Your task to perform on an android device: Open the calendar and show me this week's events Image 0: 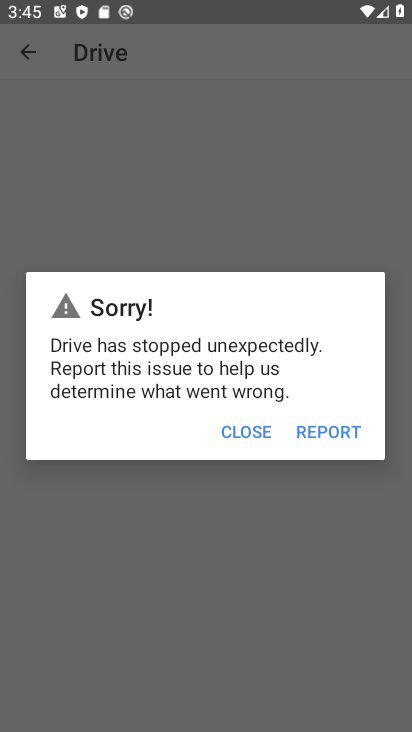
Step 0: press home button
Your task to perform on an android device: Open the calendar and show me this week's events Image 1: 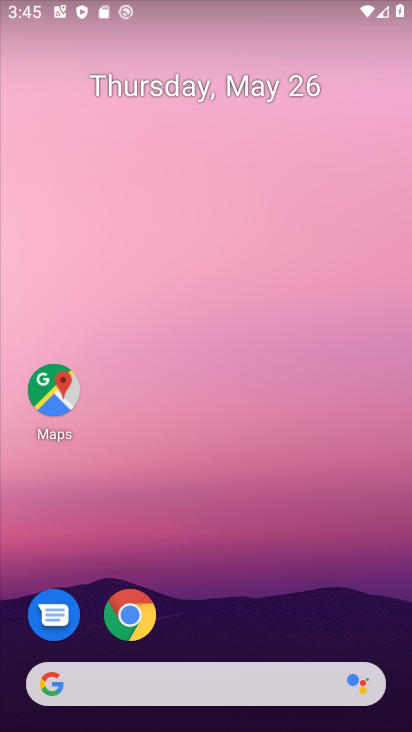
Step 1: drag from (250, 630) to (299, 7)
Your task to perform on an android device: Open the calendar and show me this week's events Image 2: 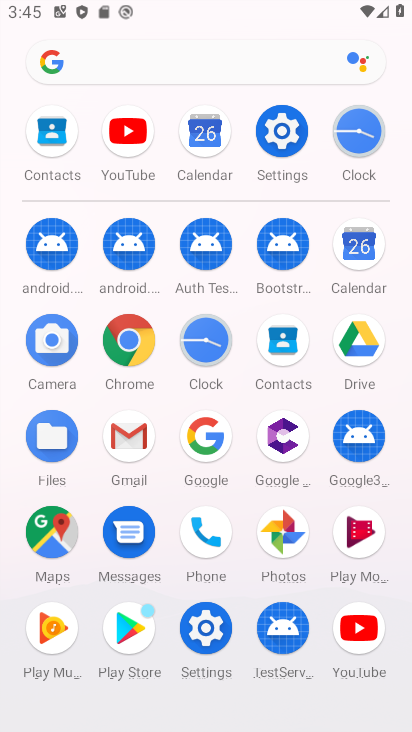
Step 2: click (376, 237)
Your task to perform on an android device: Open the calendar and show me this week's events Image 3: 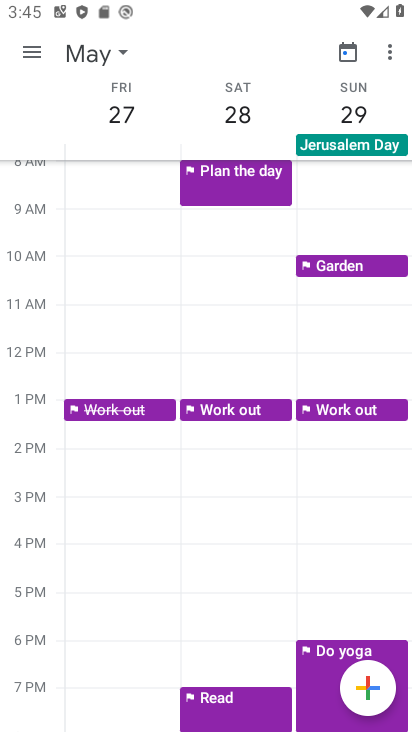
Step 3: click (26, 45)
Your task to perform on an android device: Open the calendar and show me this week's events Image 4: 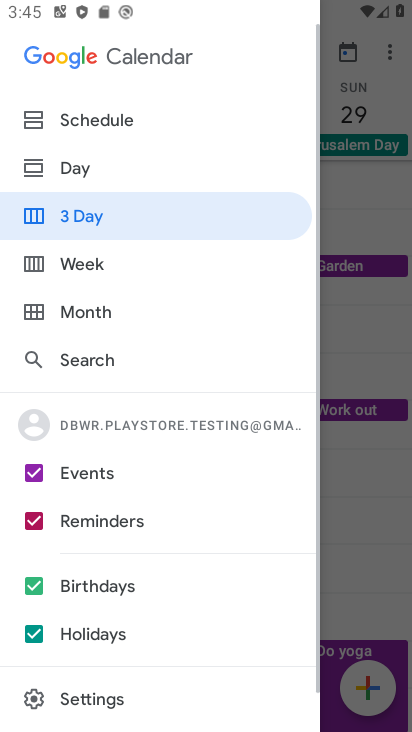
Step 4: click (80, 267)
Your task to perform on an android device: Open the calendar and show me this week's events Image 5: 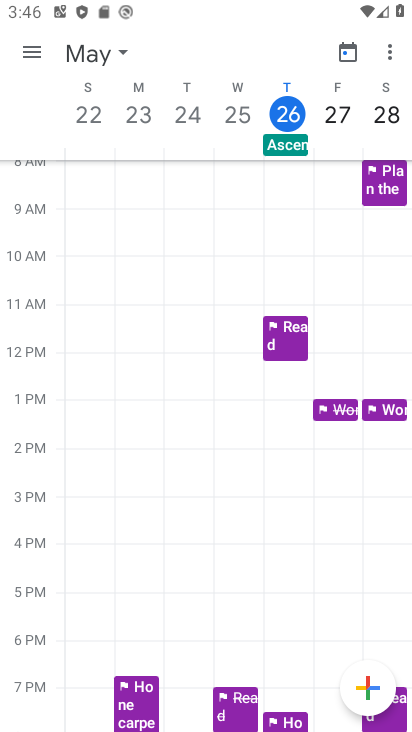
Step 5: task complete